Your task to perform on an android device: change the clock style Image 0: 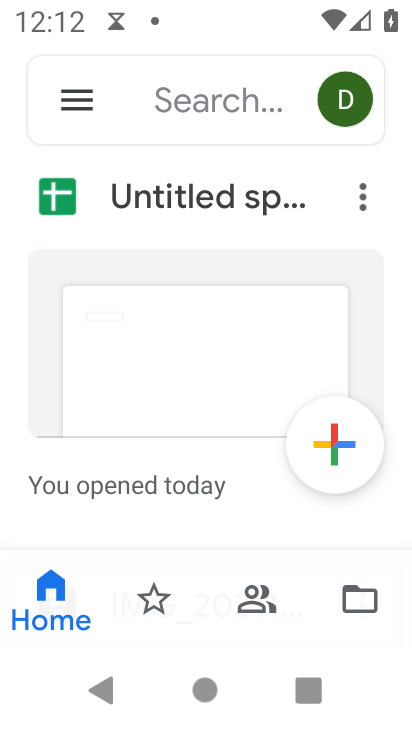
Step 0: press home button
Your task to perform on an android device: change the clock style Image 1: 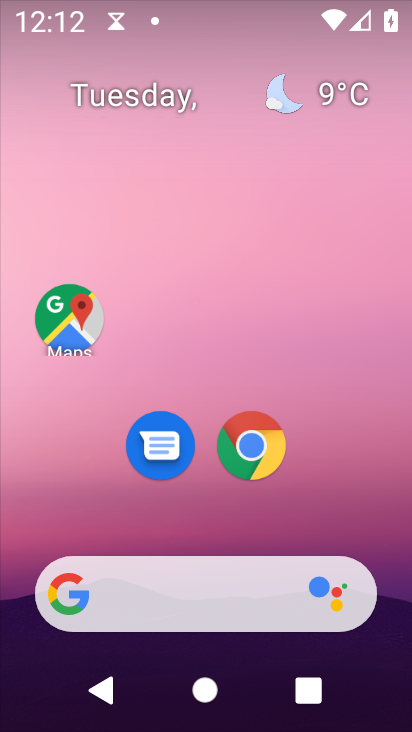
Step 1: drag from (236, 599) to (296, 32)
Your task to perform on an android device: change the clock style Image 2: 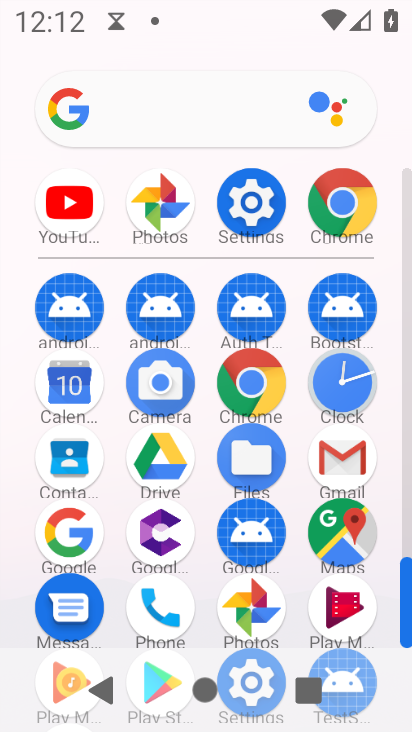
Step 2: click (339, 399)
Your task to perform on an android device: change the clock style Image 3: 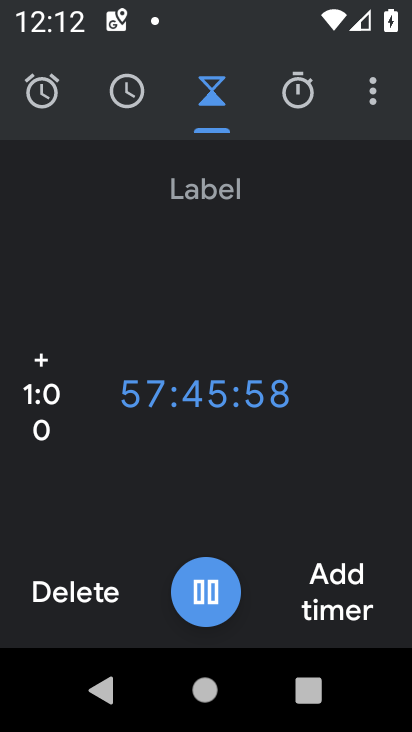
Step 3: click (363, 95)
Your task to perform on an android device: change the clock style Image 4: 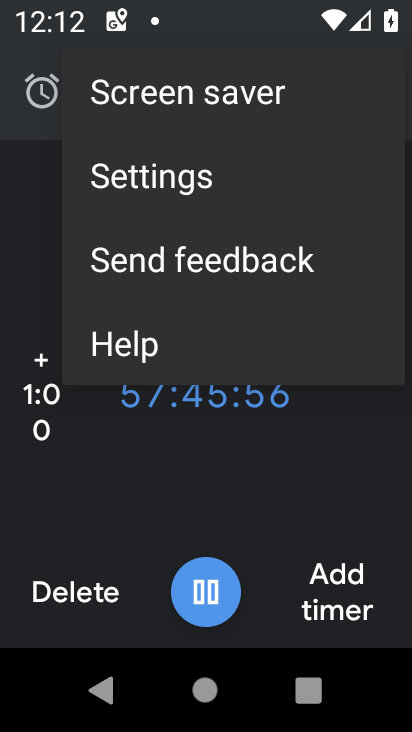
Step 4: click (218, 194)
Your task to perform on an android device: change the clock style Image 5: 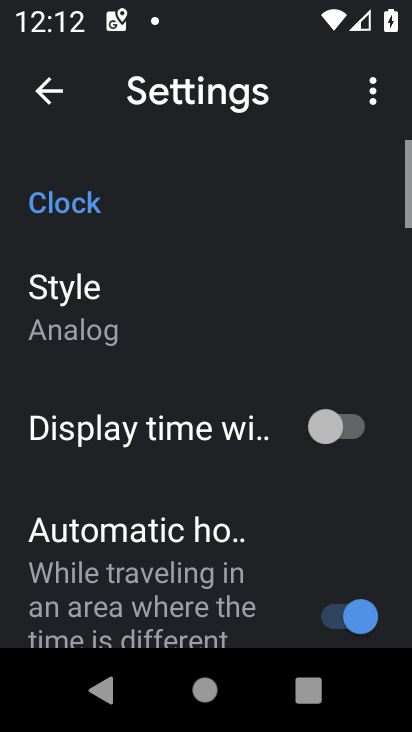
Step 5: drag from (272, 532) to (359, 97)
Your task to perform on an android device: change the clock style Image 6: 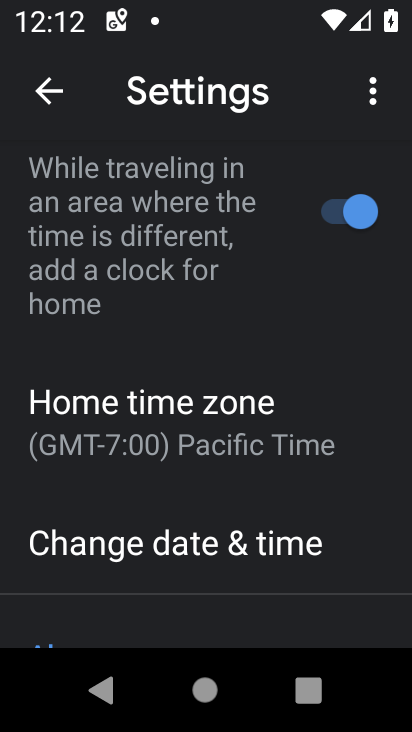
Step 6: drag from (245, 215) to (175, 656)
Your task to perform on an android device: change the clock style Image 7: 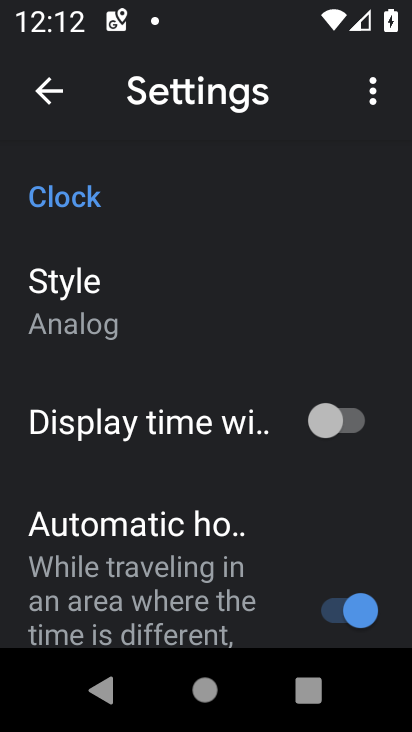
Step 7: click (94, 346)
Your task to perform on an android device: change the clock style Image 8: 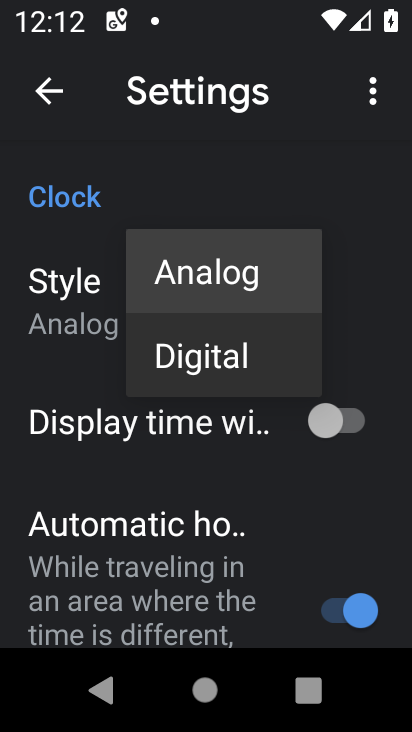
Step 8: click (187, 375)
Your task to perform on an android device: change the clock style Image 9: 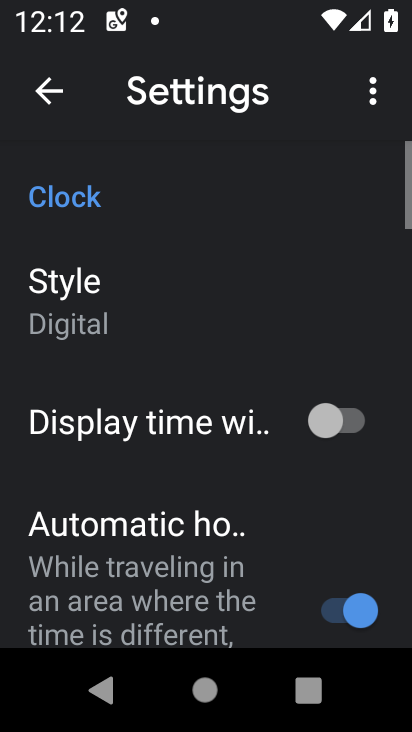
Step 9: task complete